Your task to perform on an android device: turn off picture-in-picture Image 0: 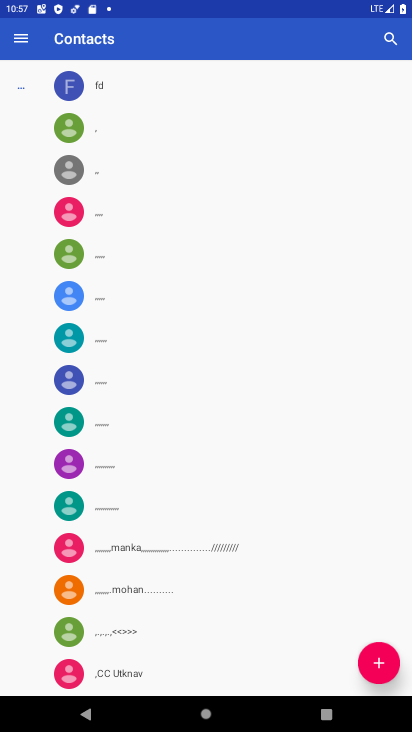
Step 0: press home button
Your task to perform on an android device: turn off picture-in-picture Image 1: 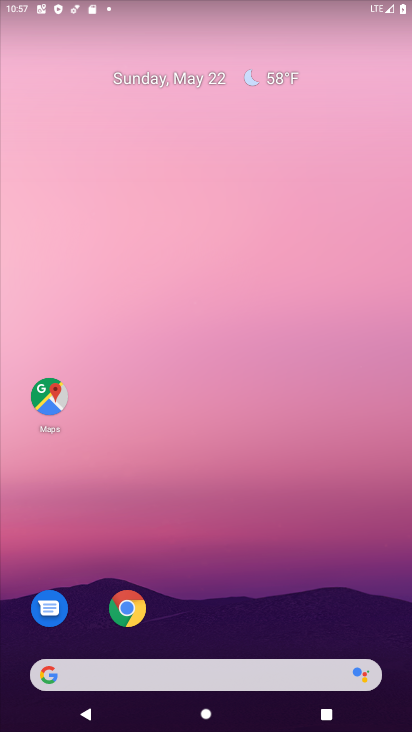
Step 1: drag from (234, 718) to (227, 153)
Your task to perform on an android device: turn off picture-in-picture Image 2: 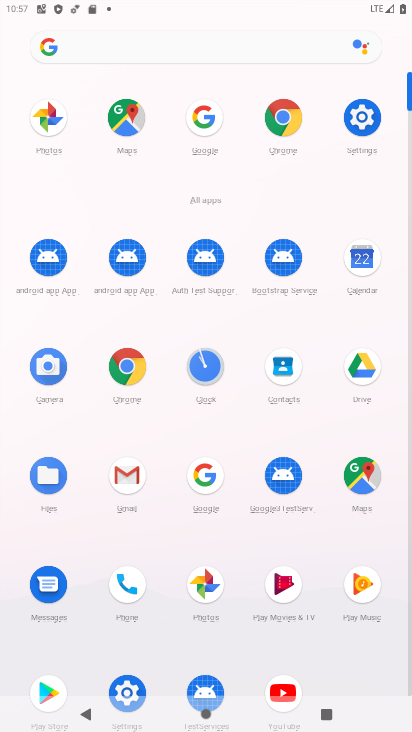
Step 2: click (359, 116)
Your task to perform on an android device: turn off picture-in-picture Image 3: 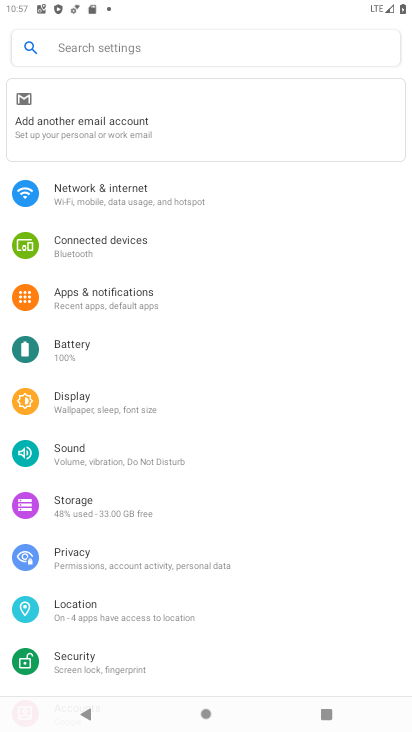
Step 3: click (102, 300)
Your task to perform on an android device: turn off picture-in-picture Image 4: 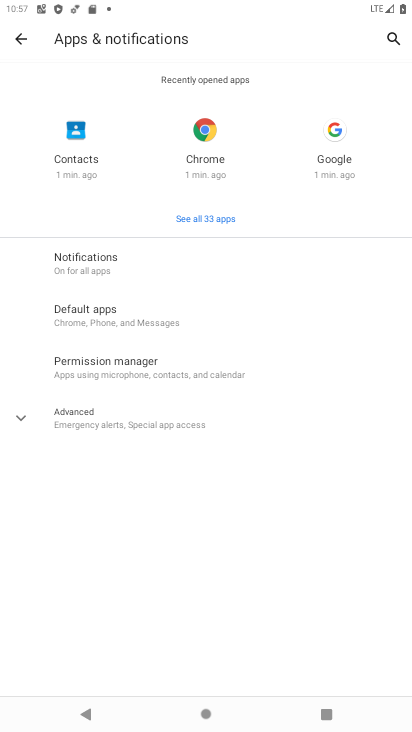
Step 4: click (111, 425)
Your task to perform on an android device: turn off picture-in-picture Image 5: 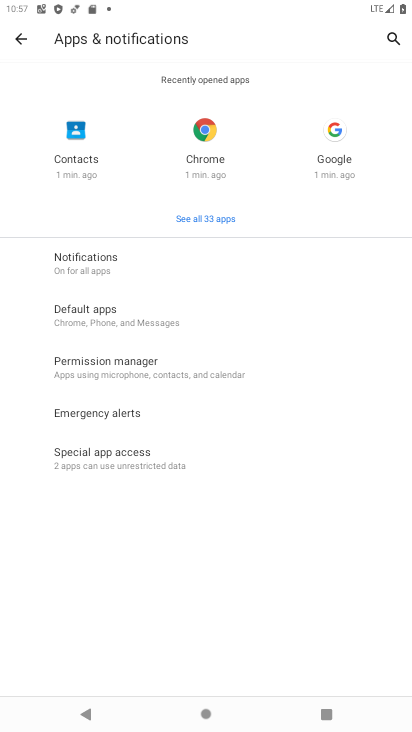
Step 5: click (122, 454)
Your task to perform on an android device: turn off picture-in-picture Image 6: 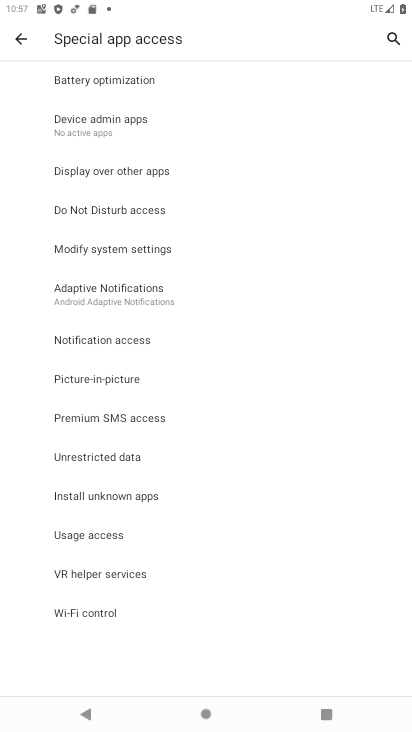
Step 6: click (86, 378)
Your task to perform on an android device: turn off picture-in-picture Image 7: 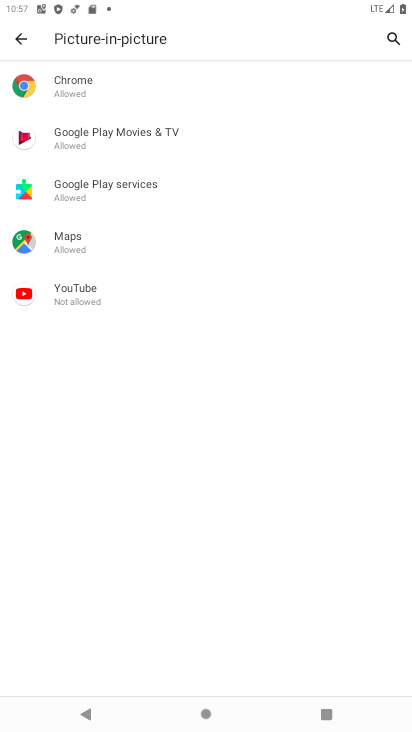
Step 7: click (102, 293)
Your task to perform on an android device: turn off picture-in-picture Image 8: 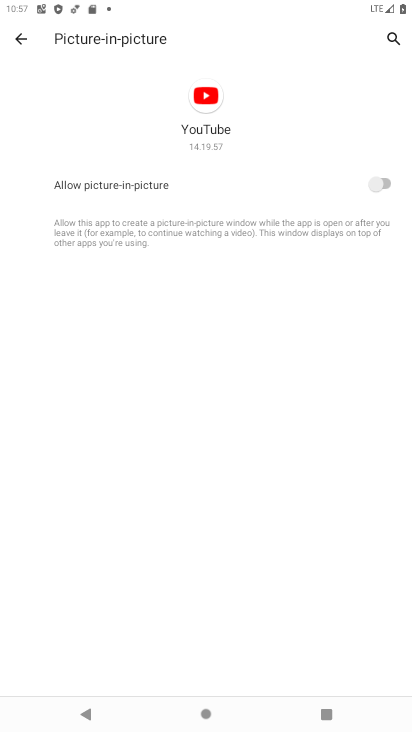
Step 8: task complete